Your task to perform on an android device: Go to network settings Image 0: 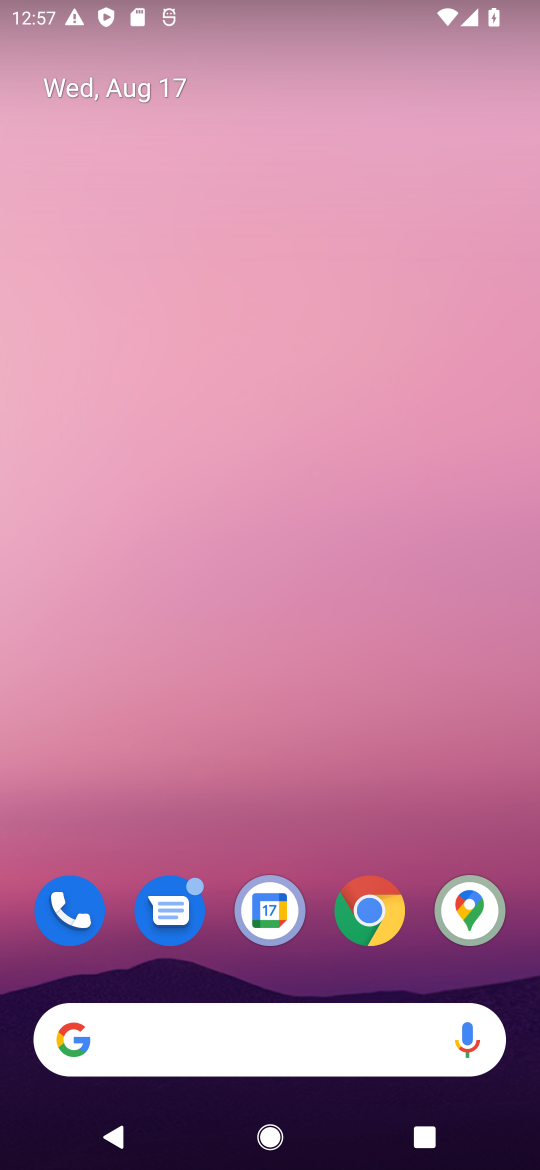
Step 0: drag from (244, 993) to (360, 85)
Your task to perform on an android device: Go to network settings Image 1: 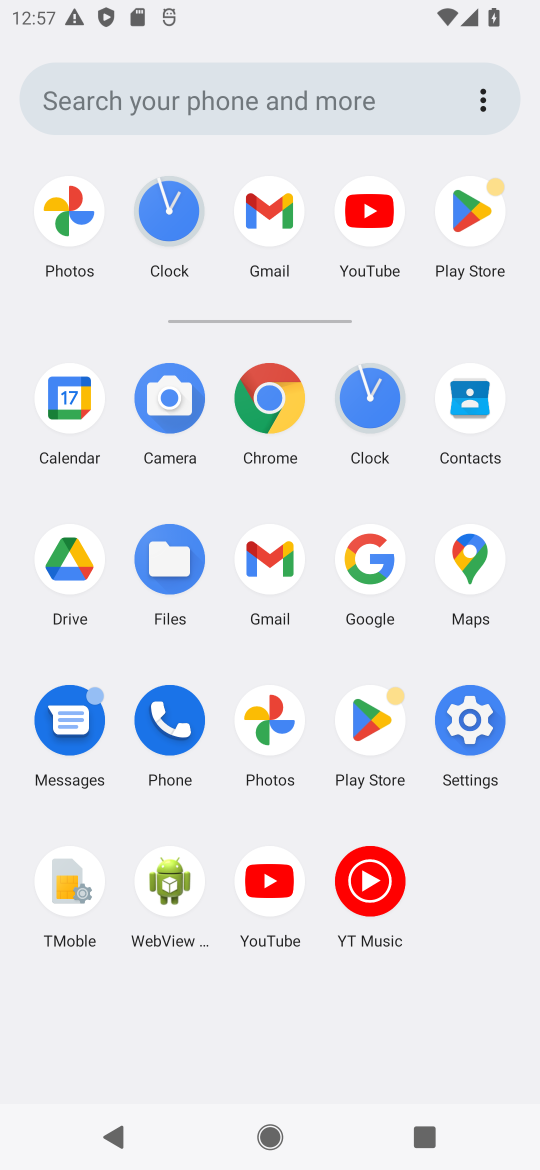
Step 1: click (464, 721)
Your task to perform on an android device: Go to network settings Image 2: 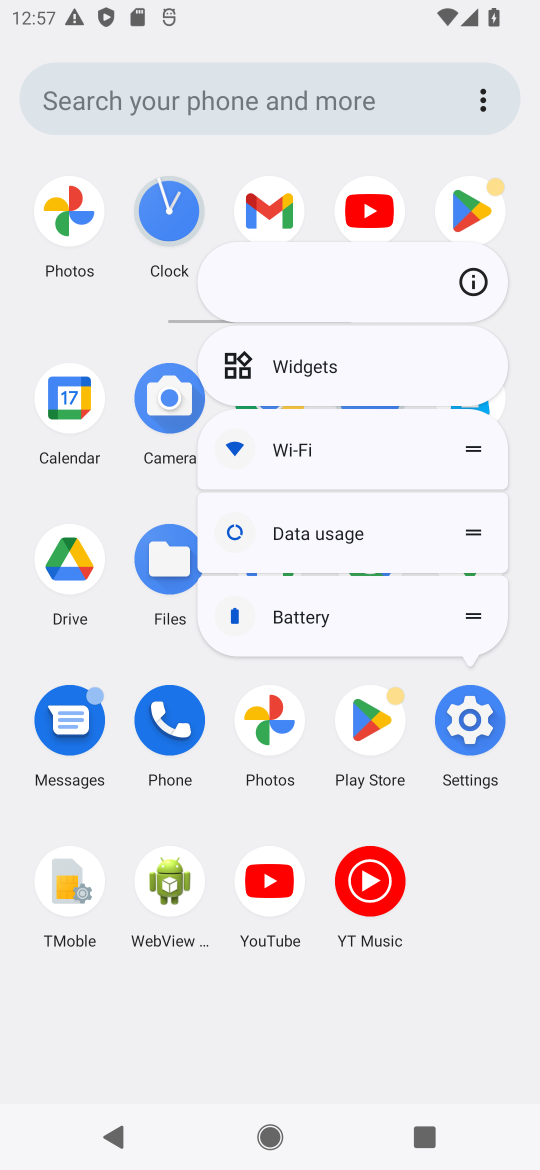
Step 2: click (464, 721)
Your task to perform on an android device: Go to network settings Image 3: 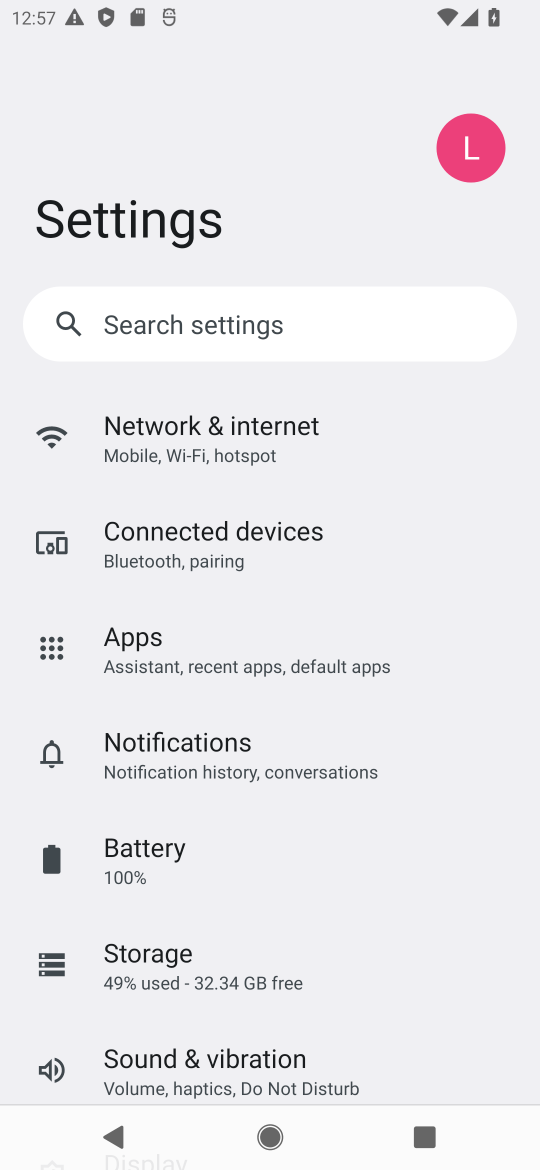
Step 3: click (214, 436)
Your task to perform on an android device: Go to network settings Image 4: 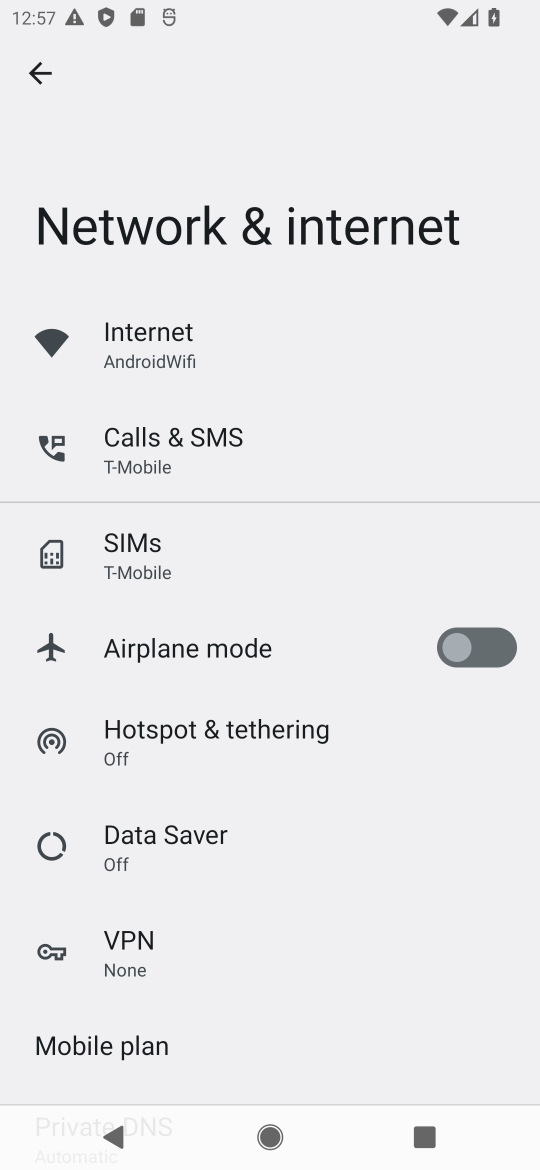
Step 4: task complete